Your task to perform on an android device: Open Youtube and go to the subscriptions tab Image 0: 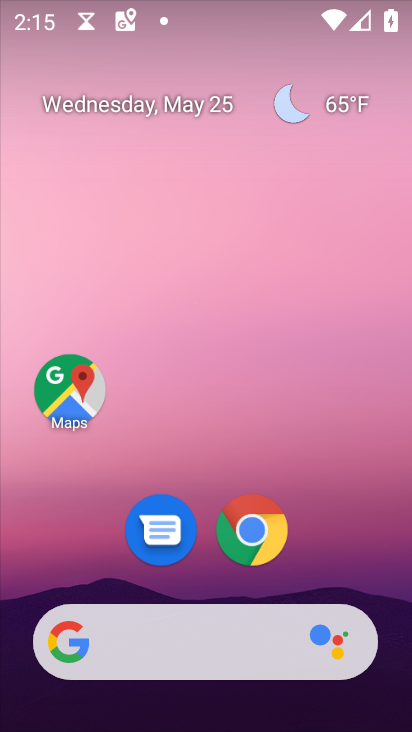
Step 0: drag from (329, 575) to (383, 223)
Your task to perform on an android device: Open Youtube and go to the subscriptions tab Image 1: 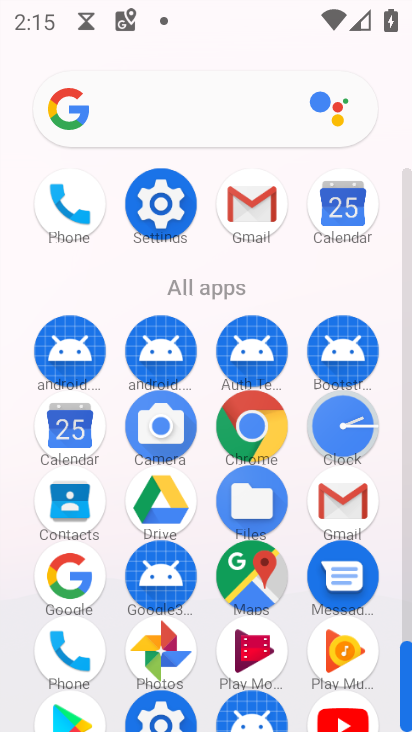
Step 1: click (341, 701)
Your task to perform on an android device: Open Youtube and go to the subscriptions tab Image 2: 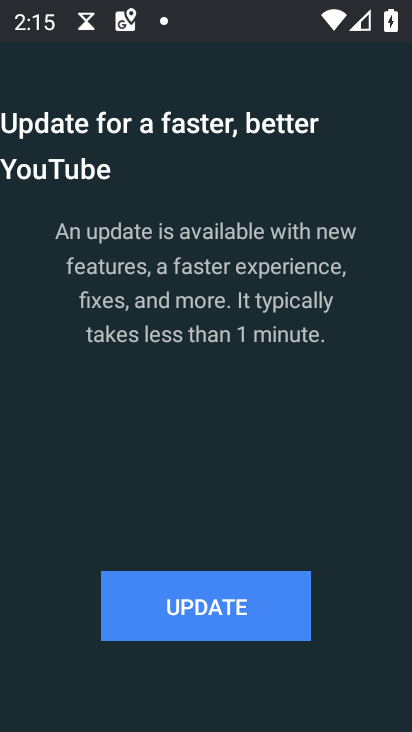
Step 2: task complete